Your task to perform on an android device: check battery use Image 0: 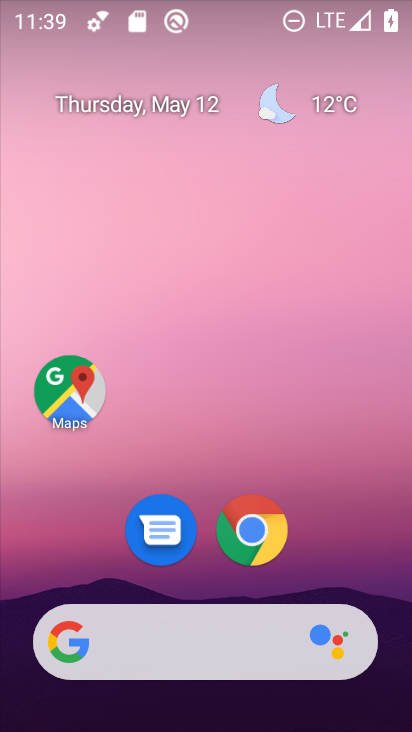
Step 0: drag from (260, 653) to (338, 131)
Your task to perform on an android device: check battery use Image 1: 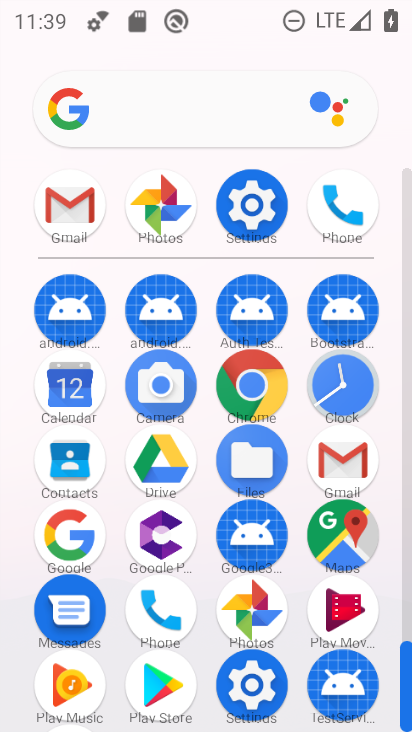
Step 1: click (251, 213)
Your task to perform on an android device: check battery use Image 2: 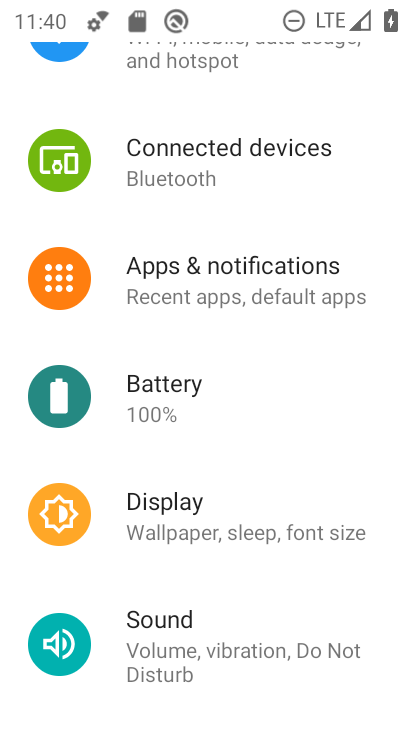
Step 2: click (157, 397)
Your task to perform on an android device: check battery use Image 3: 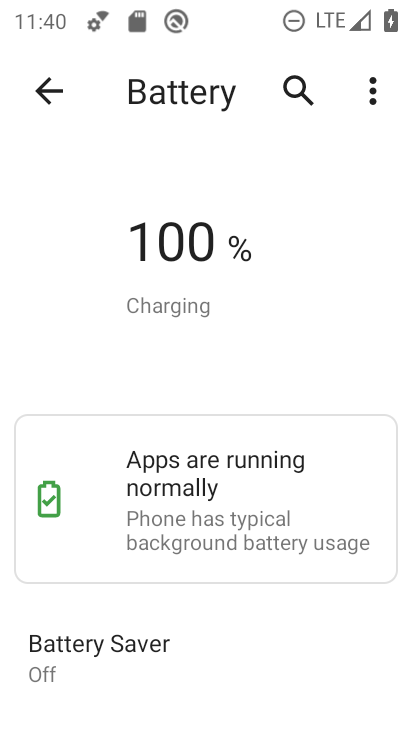
Step 3: click (369, 98)
Your task to perform on an android device: check battery use Image 4: 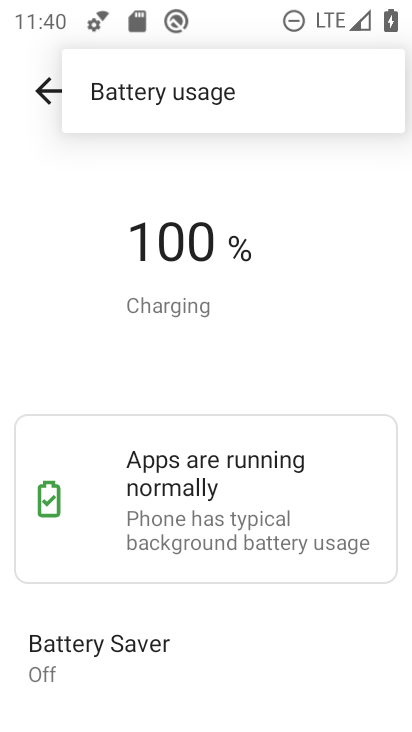
Step 4: click (262, 102)
Your task to perform on an android device: check battery use Image 5: 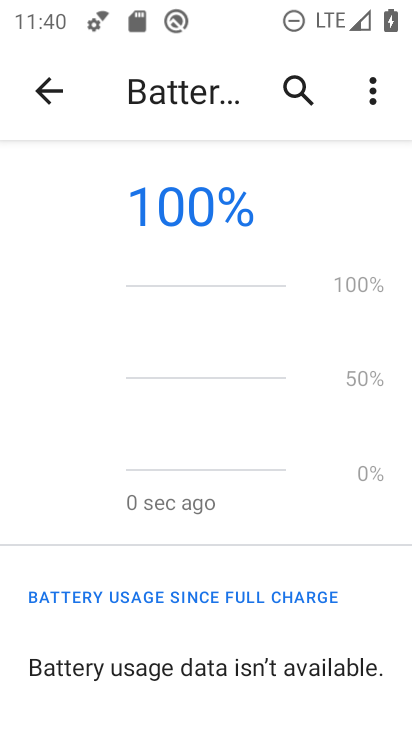
Step 5: task complete